Your task to perform on an android device: Open privacy settings Image 0: 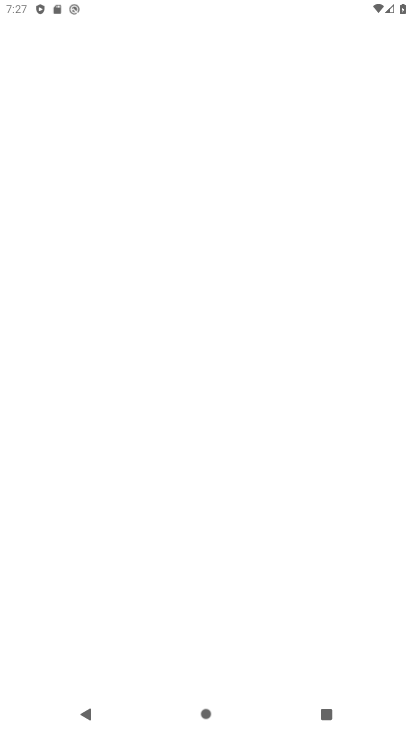
Step 0: press home button
Your task to perform on an android device: Open privacy settings Image 1: 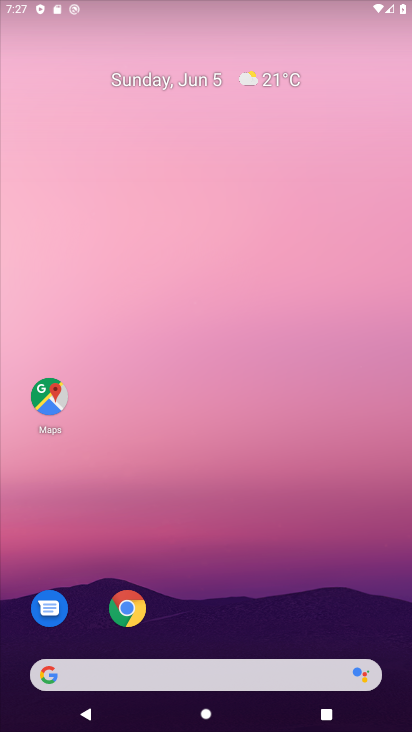
Step 1: drag from (303, 636) to (269, 284)
Your task to perform on an android device: Open privacy settings Image 2: 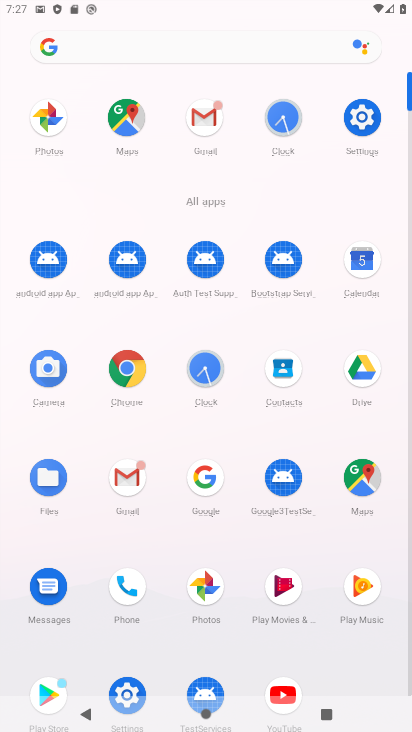
Step 2: click (360, 129)
Your task to perform on an android device: Open privacy settings Image 3: 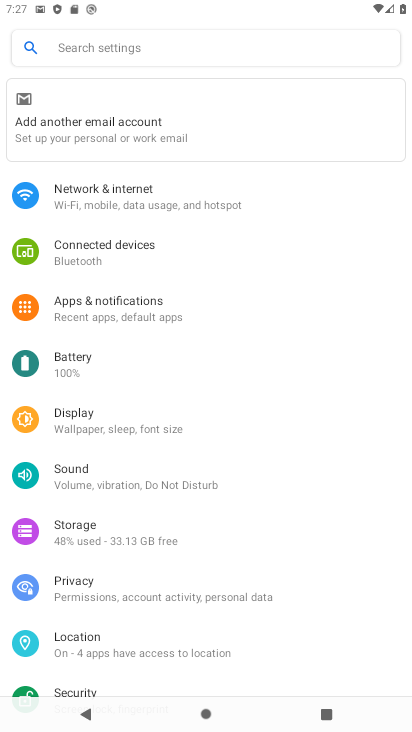
Step 3: click (139, 594)
Your task to perform on an android device: Open privacy settings Image 4: 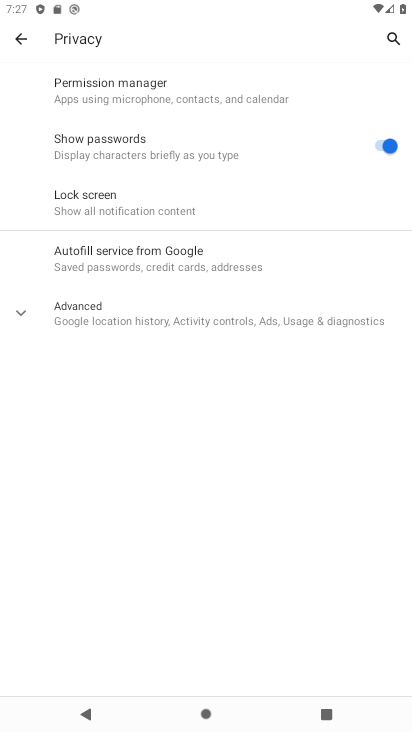
Step 4: task complete